Your task to perform on an android device: clear history in the chrome app Image 0: 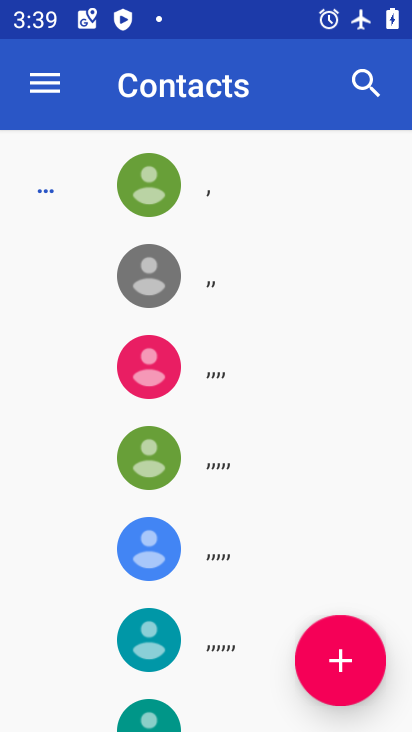
Step 0: press home button
Your task to perform on an android device: clear history in the chrome app Image 1: 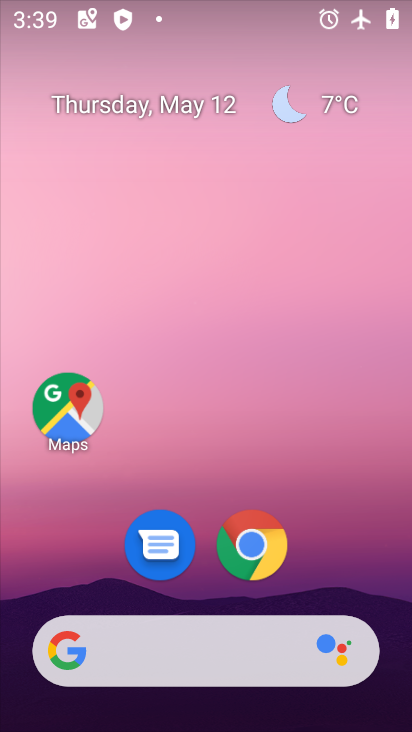
Step 1: click (255, 549)
Your task to perform on an android device: clear history in the chrome app Image 2: 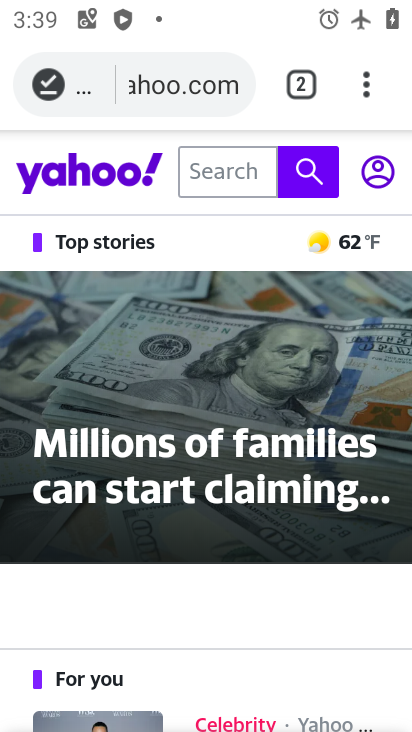
Step 2: click (363, 86)
Your task to perform on an android device: clear history in the chrome app Image 3: 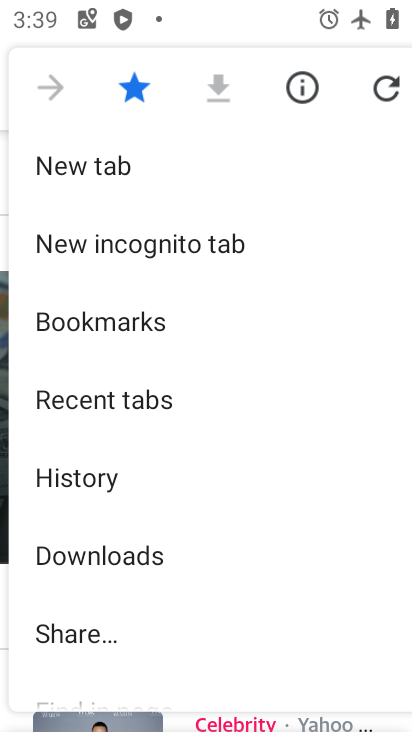
Step 3: click (94, 474)
Your task to perform on an android device: clear history in the chrome app Image 4: 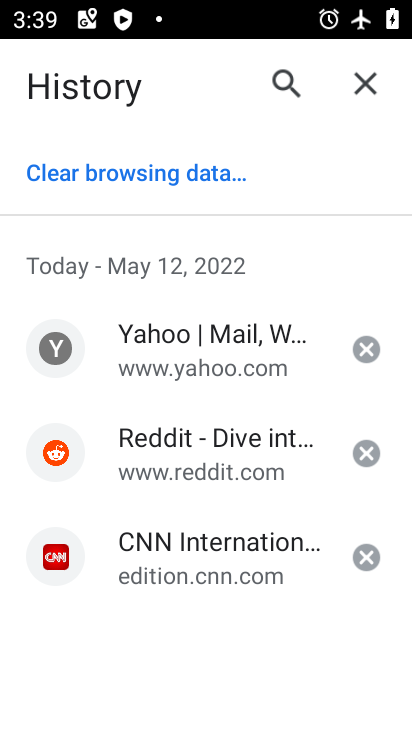
Step 4: click (110, 174)
Your task to perform on an android device: clear history in the chrome app Image 5: 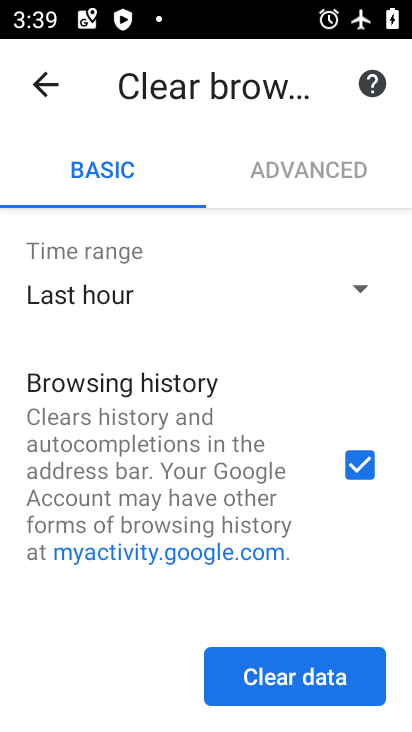
Step 5: drag from (295, 534) to (274, 130)
Your task to perform on an android device: clear history in the chrome app Image 6: 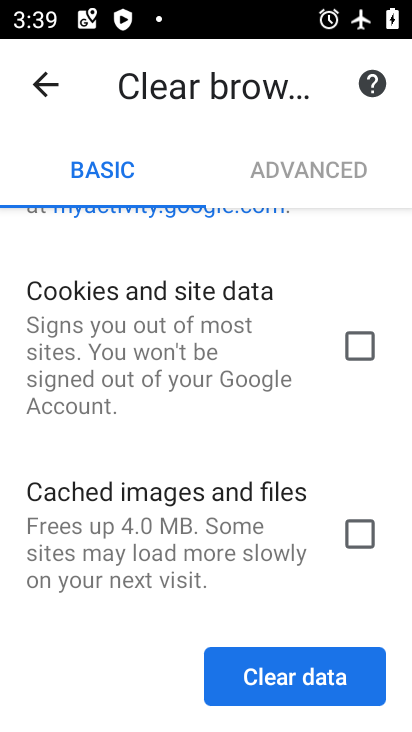
Step 6: click (285, 674)
Your task to perform on an android device: clear history in the chrome app Image 7: 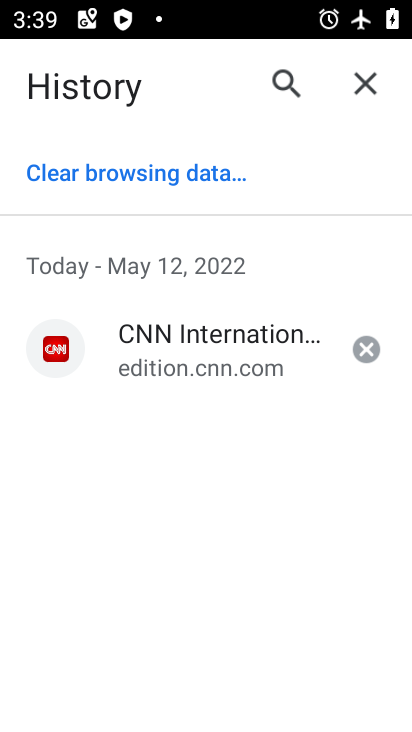
Step 7: task complete